Your task to perform on an android device: Open Maps and search for coffee Image 0: 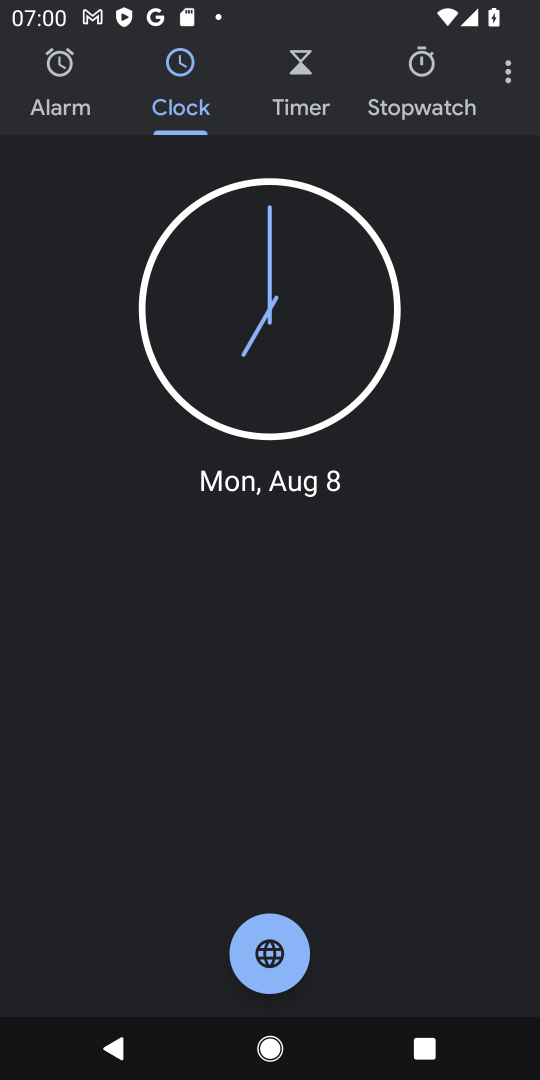
Step 0: press home button
Your task to perform on an android device: Open Maps and search for coffee Image 1: 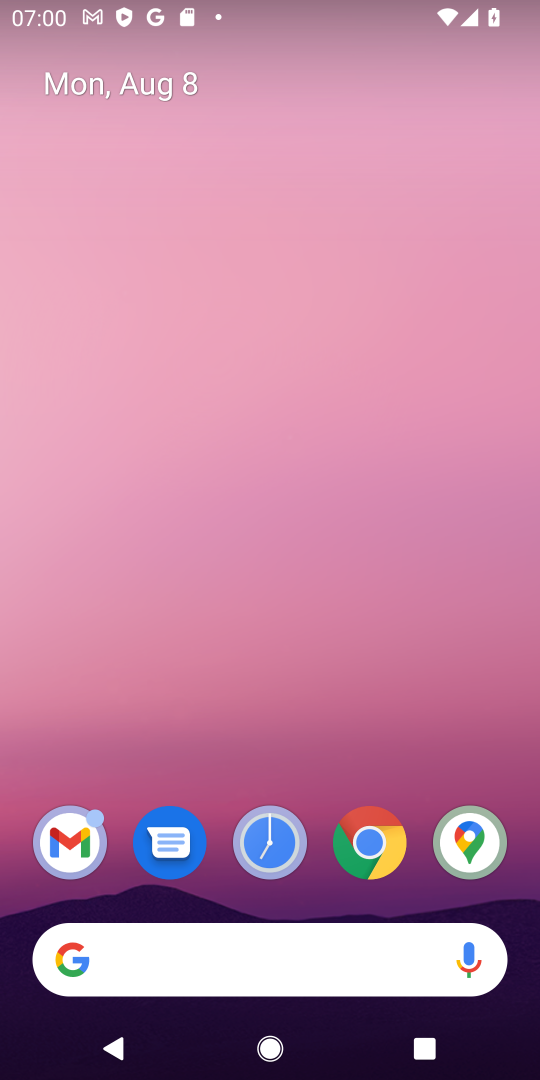
Step 1: drag from (322, 885) to (291, 151)
Your task to perform on an android device: Open Maps and search for coffee Image 2: 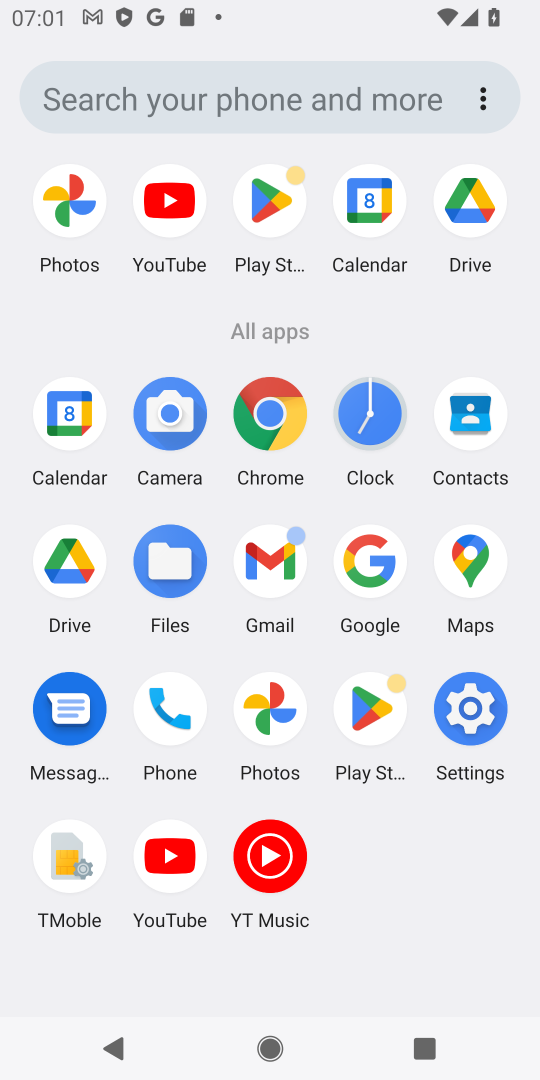
Step 2: click (476, 549)
Your task to perform on an android device: Open Maps and search for coffee Image 3: 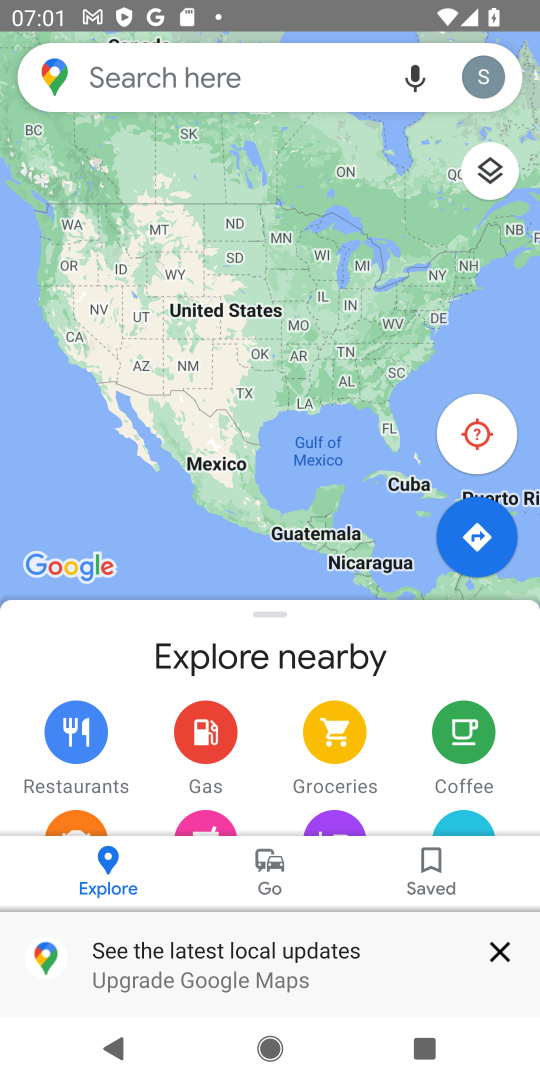
Step 3: click (114, 66)
Your task to perform on an android device: Open Maps and search for coffee Image 4: 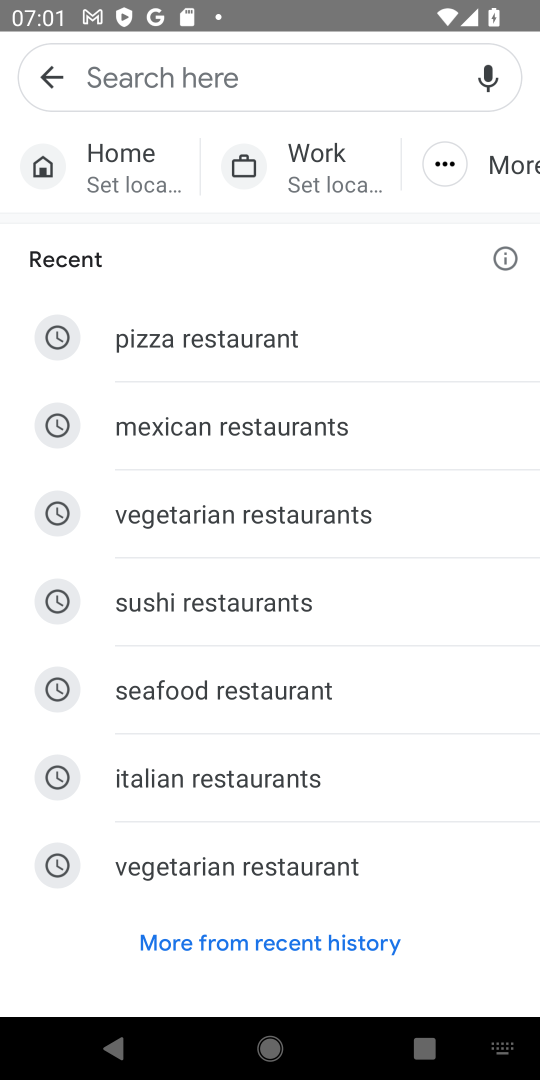
Step 4: type " coffee"
Your task to perform on an android device: Open Maps and search for coffee Image 5: 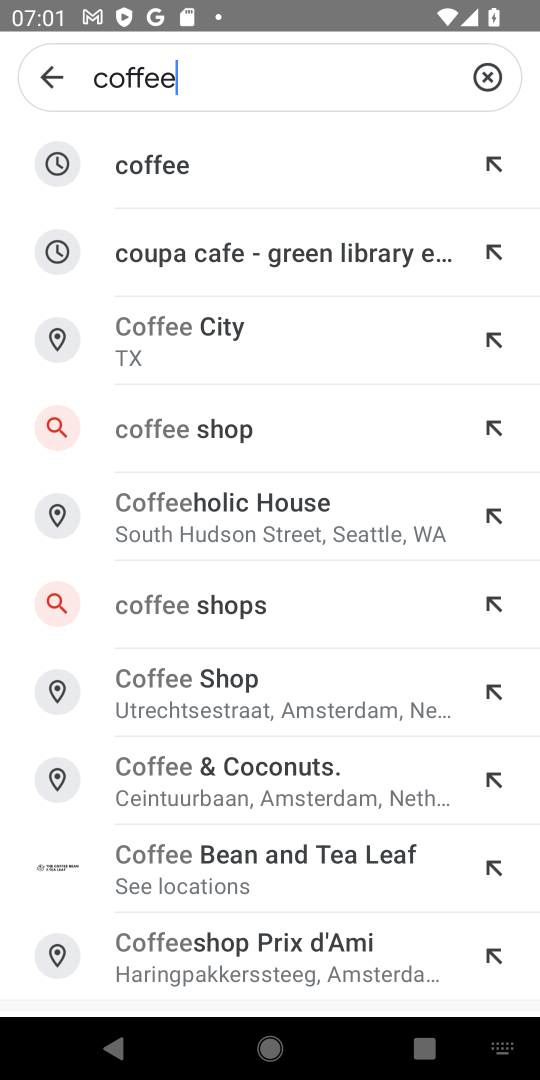
Step 5: click (185, 157)
Your task to perform on an android device: Open Maps and search for coffee Image 6: 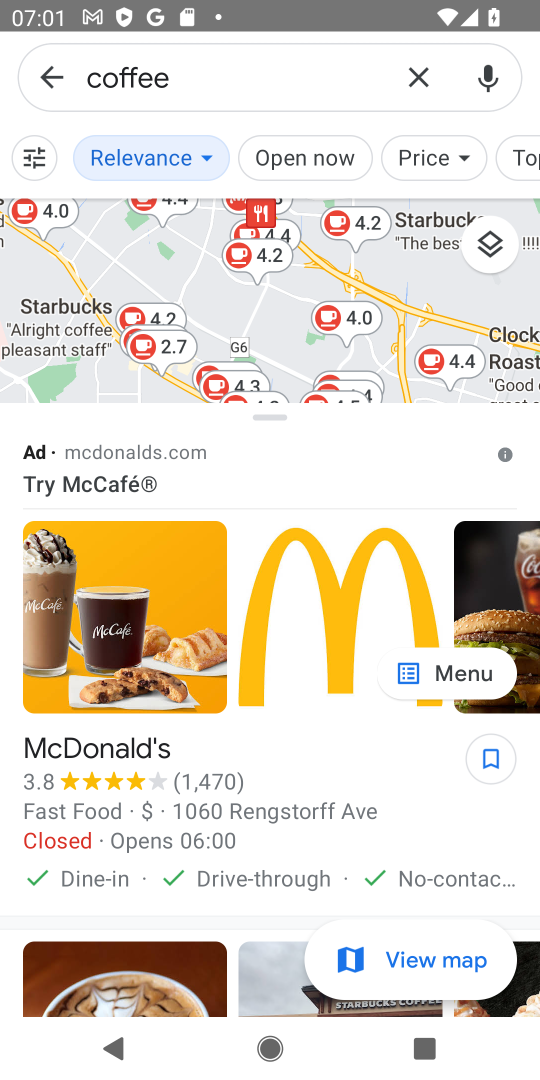
Step 6: task complete